Your task to perform on an android device: Go to display settings Image 0: 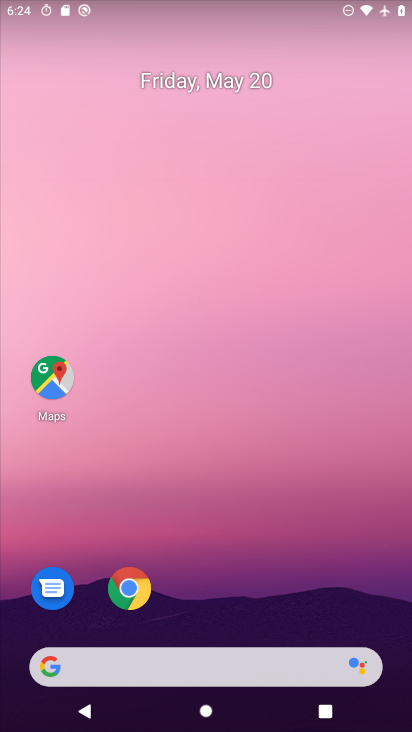
Step 0: click (123, 615)
Your task to perform on an android device: Go to display settings Image 1: 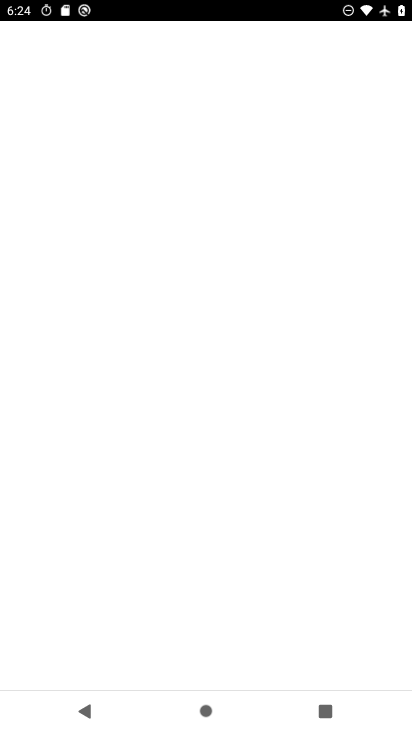
Step 1: press home button
Your task to perform on an android device: Go to display settings Image 2: 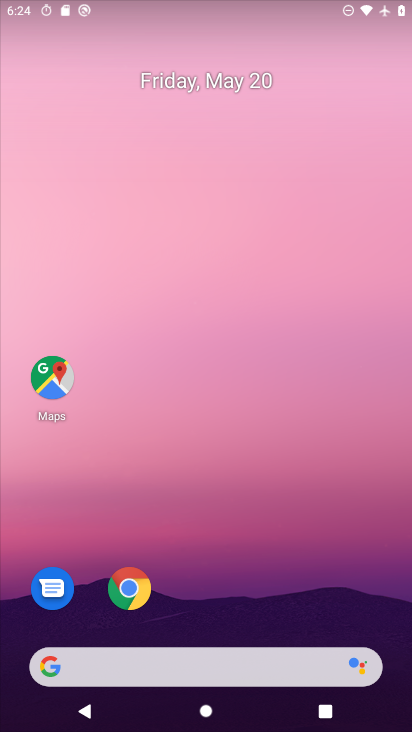
Step 2: drag from (238, 574) to (247, 158)
Your task to perform on an android device: Go to display settings Image 3: 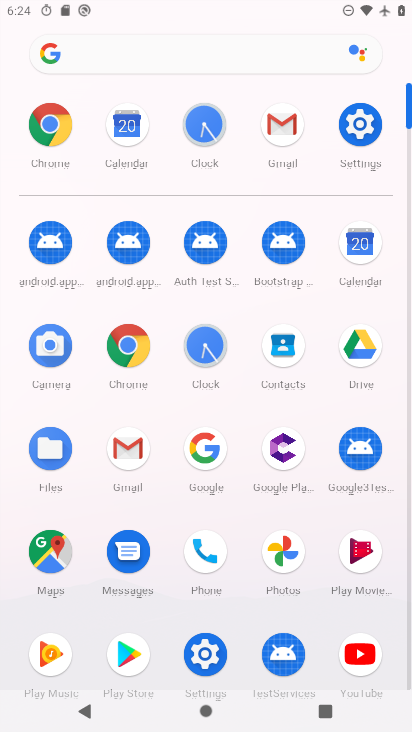
Step 3: click (383, 132)
Your task to perform on an android device: Go to display settings Image 4: 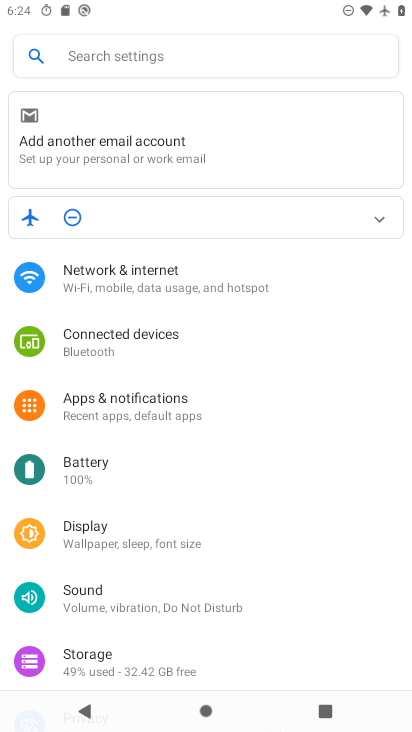
Step 4: click (104, 530)
Your task to perform on an android device: Go to display settings Image 5: 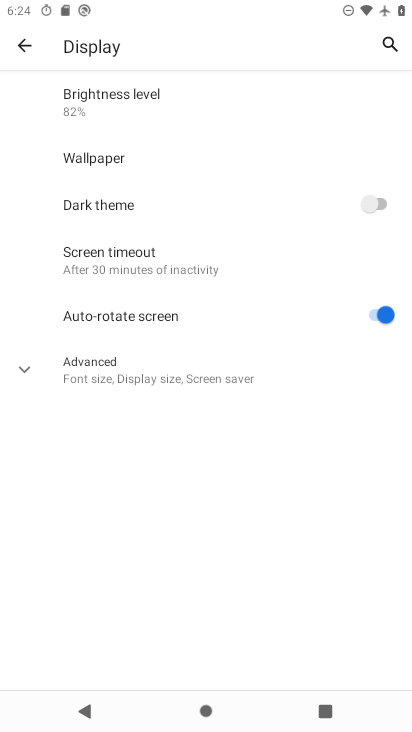
Step 5: task complete